Your task to perform on an android device: Go to battery settings Image 0: 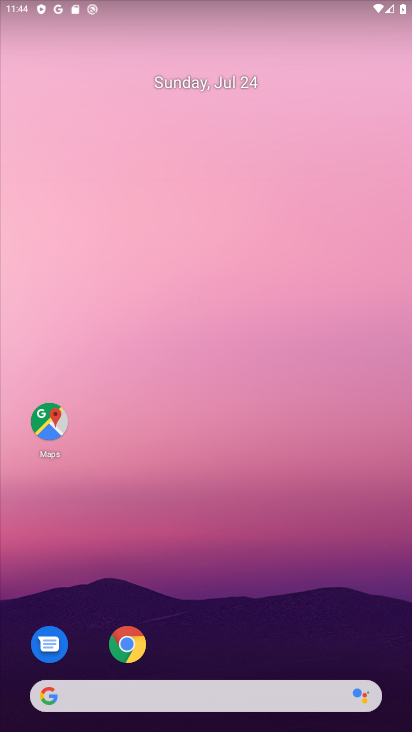
Step 0: drag from (282, 18) to (241, 273)
Your task to perform on an android device: Go to battery settings Image 1: 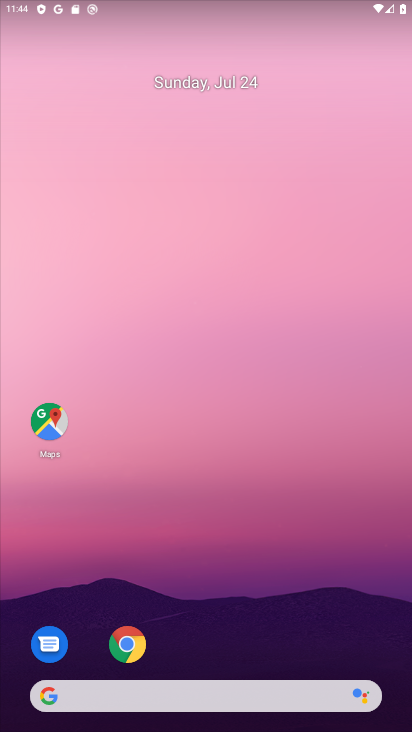
Step 1: drag from (228, 107) to (273, 589)
Your task to perform on an android device: Go to battery settings Image 2: 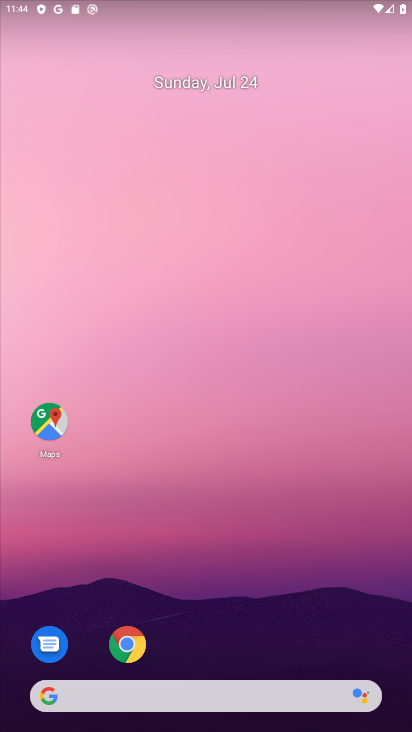
Step 2: drag from (200, 7) to (209, 668)
Your task to perform on an android device: Go to battery settings Image 3: 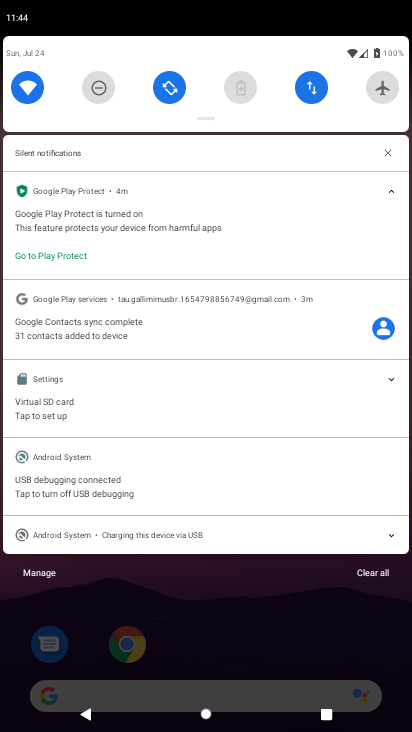
Step 3: click (234, 81)
Your task to perform on an android device: Go to battery settings Image 4: 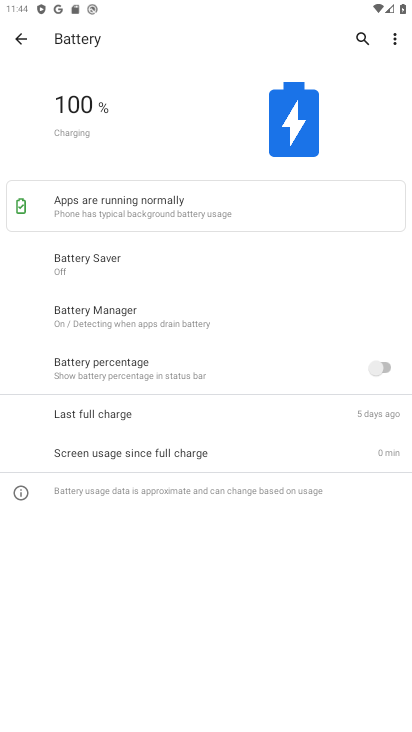
Step 4: task complete